Your task to perform on an android device: turn off notifications settings in the gmail app Image 0: 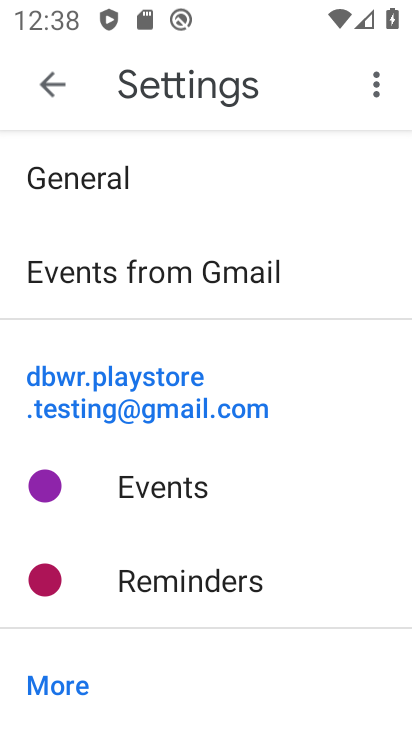
Step 0: press home button
Your task to perform on an android device: turn off notifications settings in the gmail app Image 1: 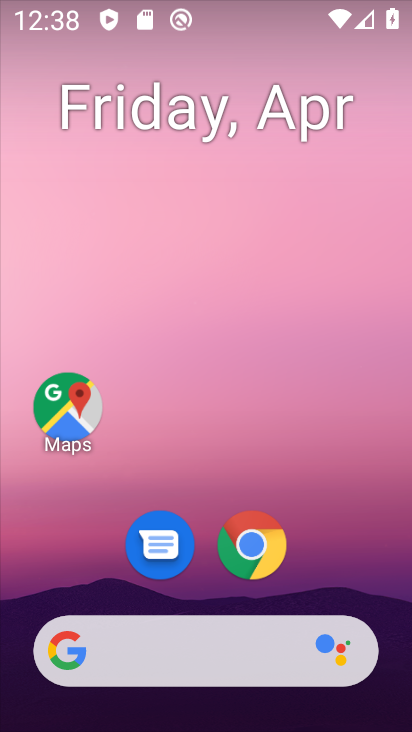
Step 1: drag from (336, 558) to (343, 66)
Your task to perform on an android device: turn off notifications settings in the gmail app Image 2: 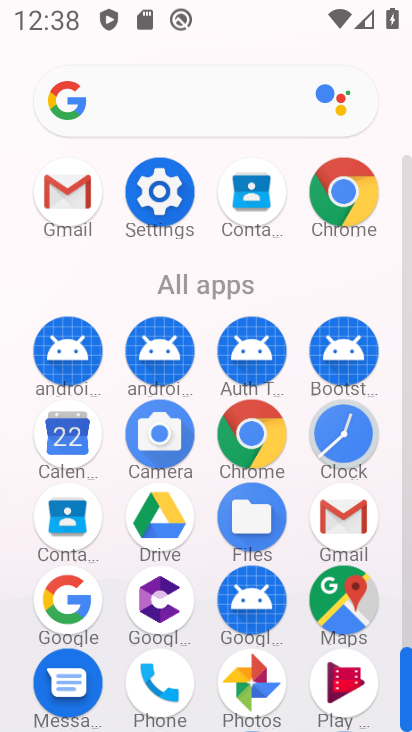
Step 2: click (58, 209)
Your task to perform on an android device: turn off notifications settings in the gmail app Image 3: 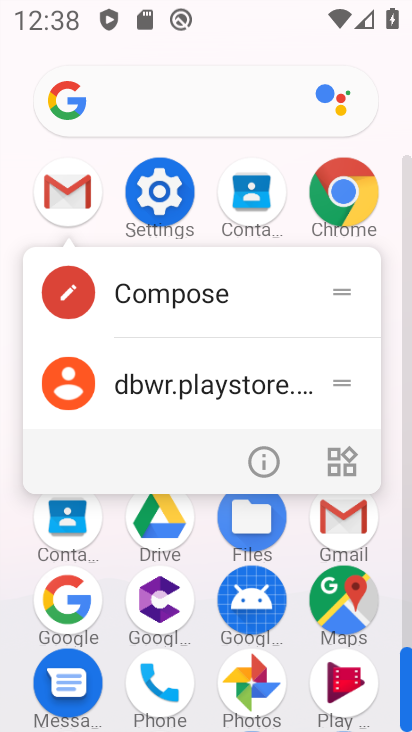
Step 3: click (61, 205)
Your task to perform on an android device: turn off notifications settings in the gmail app Image 4: 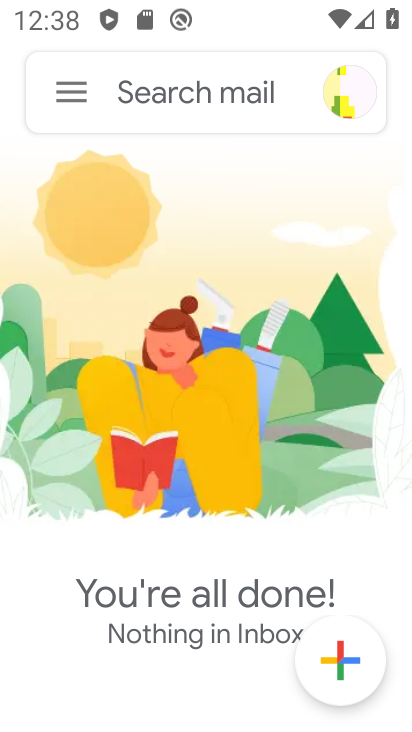
Step 4: click (73, 108)
Your task to perform on an android device: turn off notifications settings in the gmail app Image 5: 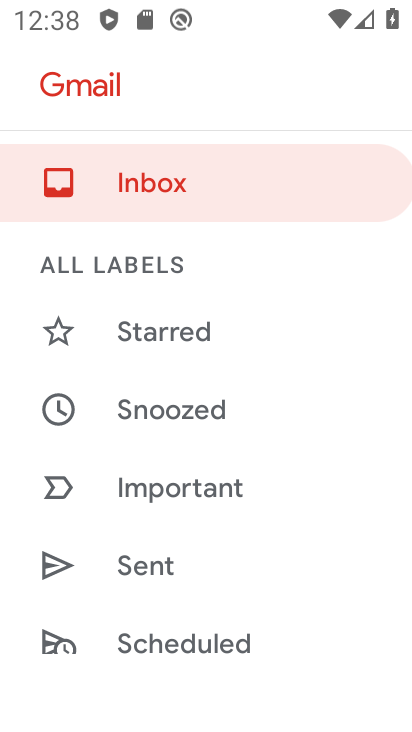
Step 5: drag from (245, 628) to (233, 222)
Your task to perform on an android device: turn off notifications settings in the gmail app Image 6: 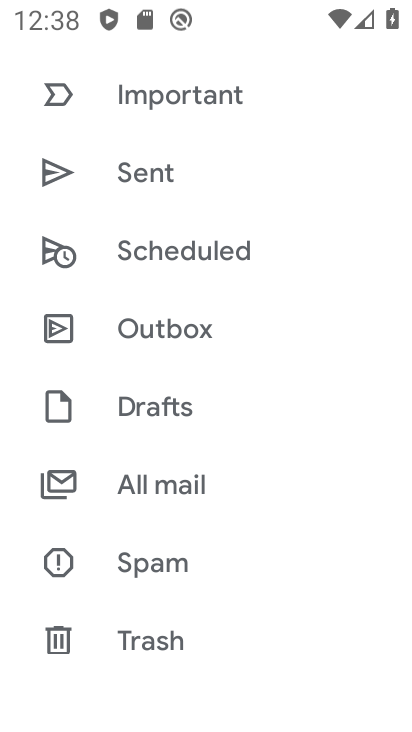
Step 6: drag from (256, 613) to (259, 140)
Your task to perform on an android device: turn off notifications settings in the gmail app Image 7: 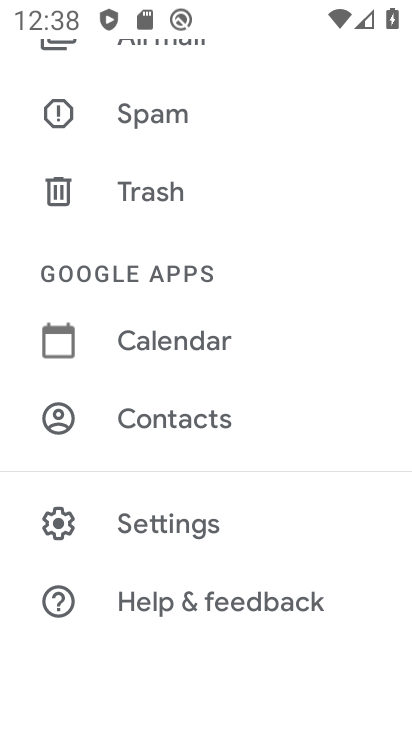
Step 7: click (215, 514)
Your task to perform on an android device: turn off notifications settings in the gmail app Image 8: 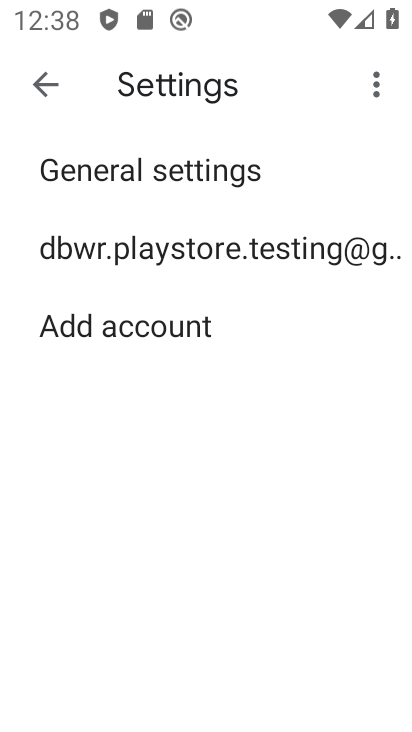
Step 8: click (208, 170)
Your task to perform on an android device: turn off notifications settings in the gmail app Image 9: 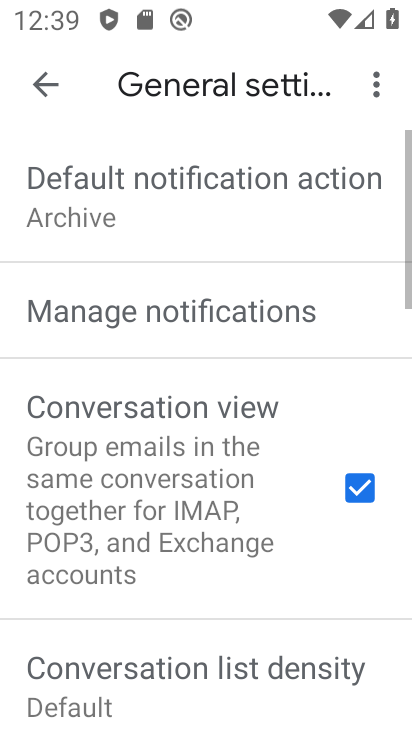
Step 9: click (210, 305)
Your task to perform on an android device: turn off notifications settings in the gmail app Image 10: 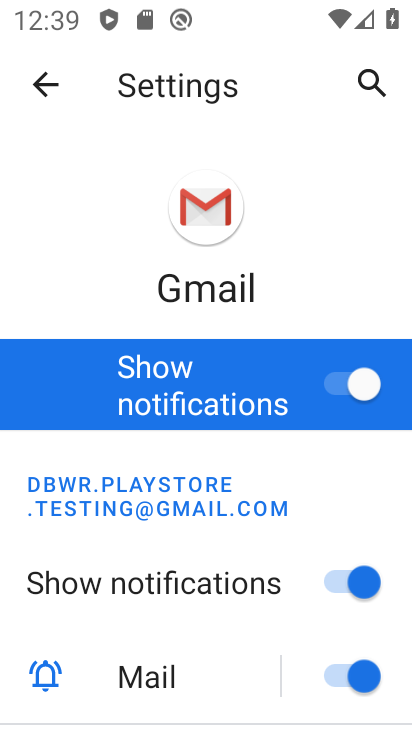
Step 10: click (335, 375)
Your task to perform on an android device: turn off notifications settings in the gmail app Image 11: 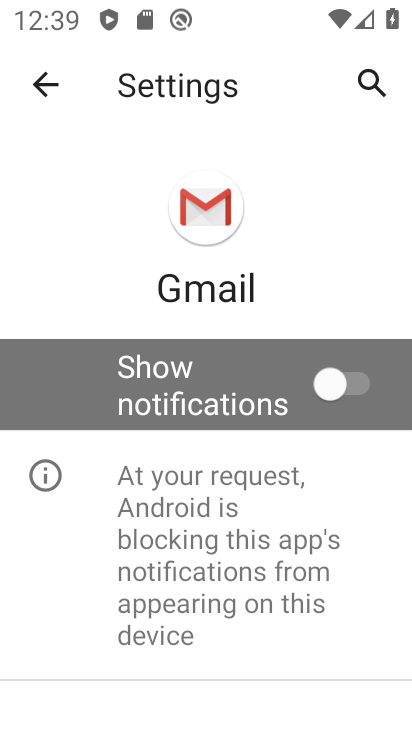
Step 11: task complete